Your task to perform on an android device: move an email to a new category in the gmail app Image 0: 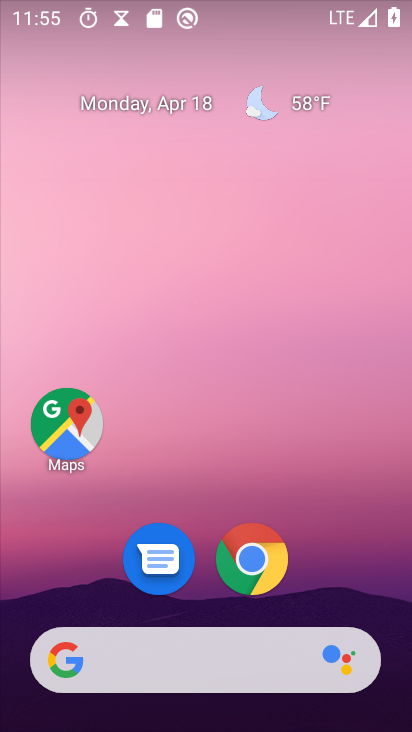
Step 0: drag from (349, 507) to (261, 103)
Your task to perform on an android device: move an email to a new category in the gmail app Image 1: 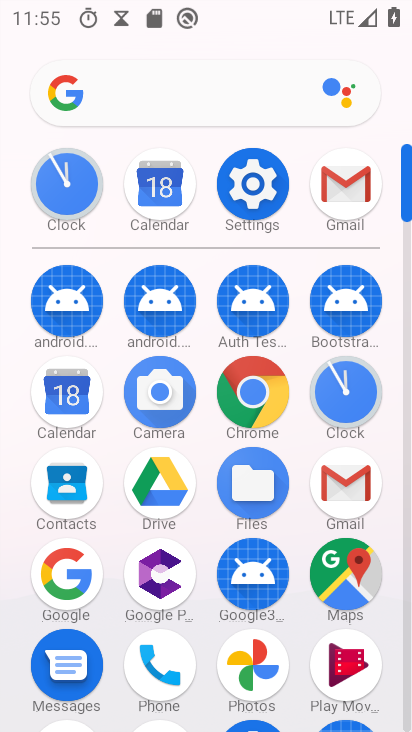
Step 1: click (335, 181)
Your task to perform on an android device: move an email to a new category in the gmail app Image 2: 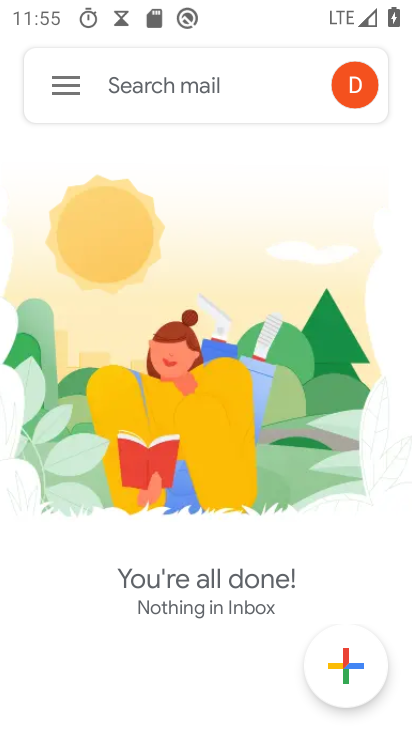
Step 2: click (73, 93)
Your task to perform on an android device: move an email to a new category in the gmail app Image 3: 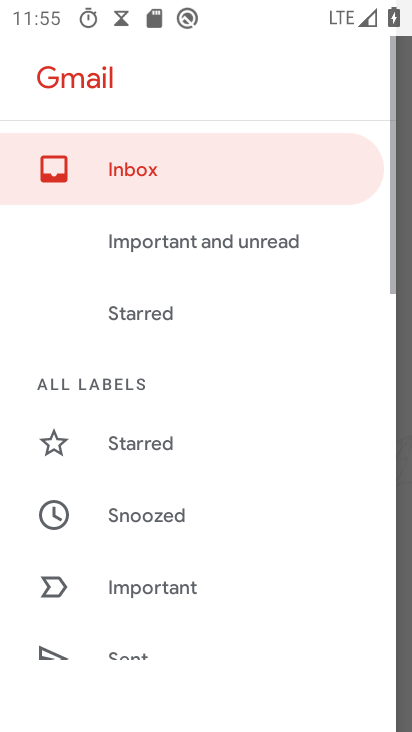
Step 3: task complete